Your task to perform on an android device: open app "Adobe Acrobat Reader" Image 0: 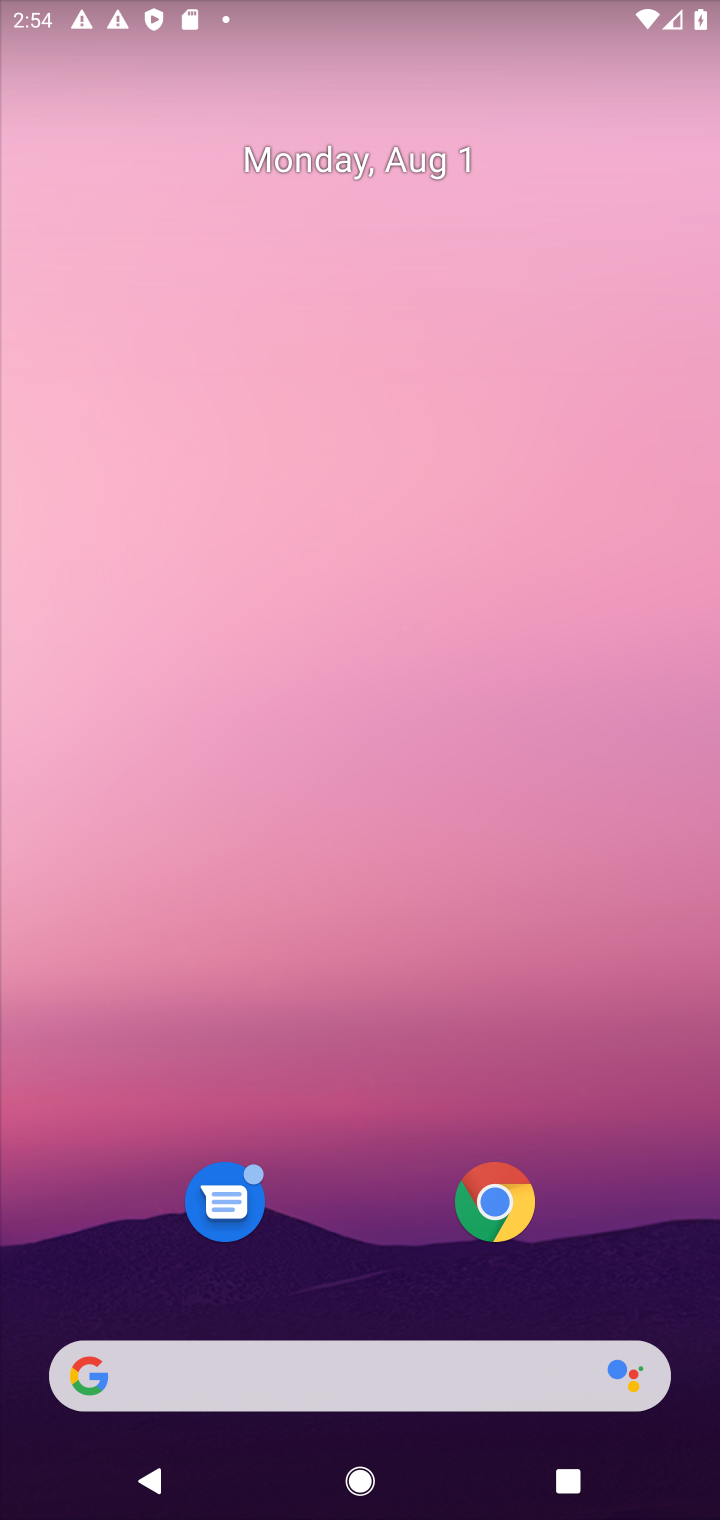
Step 0: drag from (353, 1029) to (425, 57)
Your task to perform on an android device: open app "Adobe Acrobat Reader" Image 1: 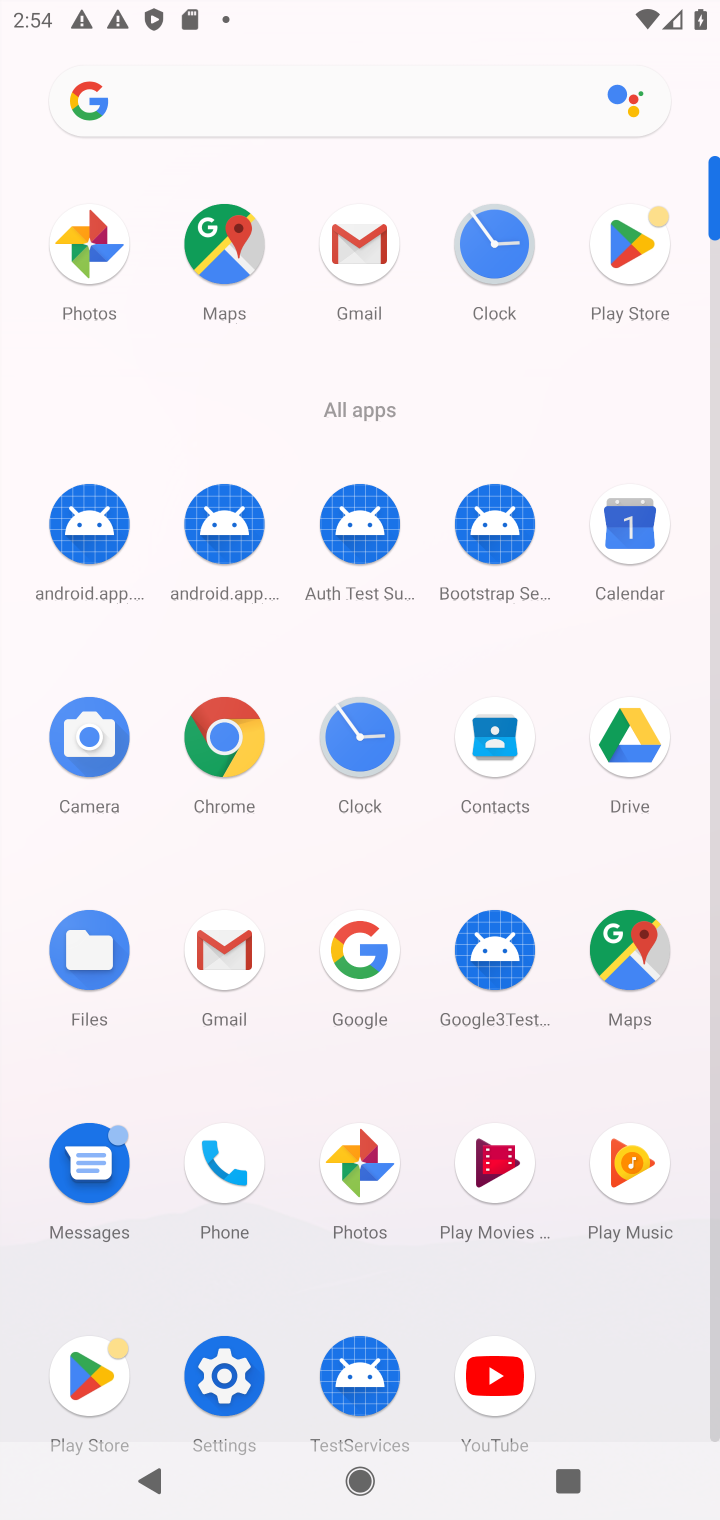
Step 1: click (619, 233)
Your task to perform on an android device: open app "Adobe Acrobat Reader" Image 2: 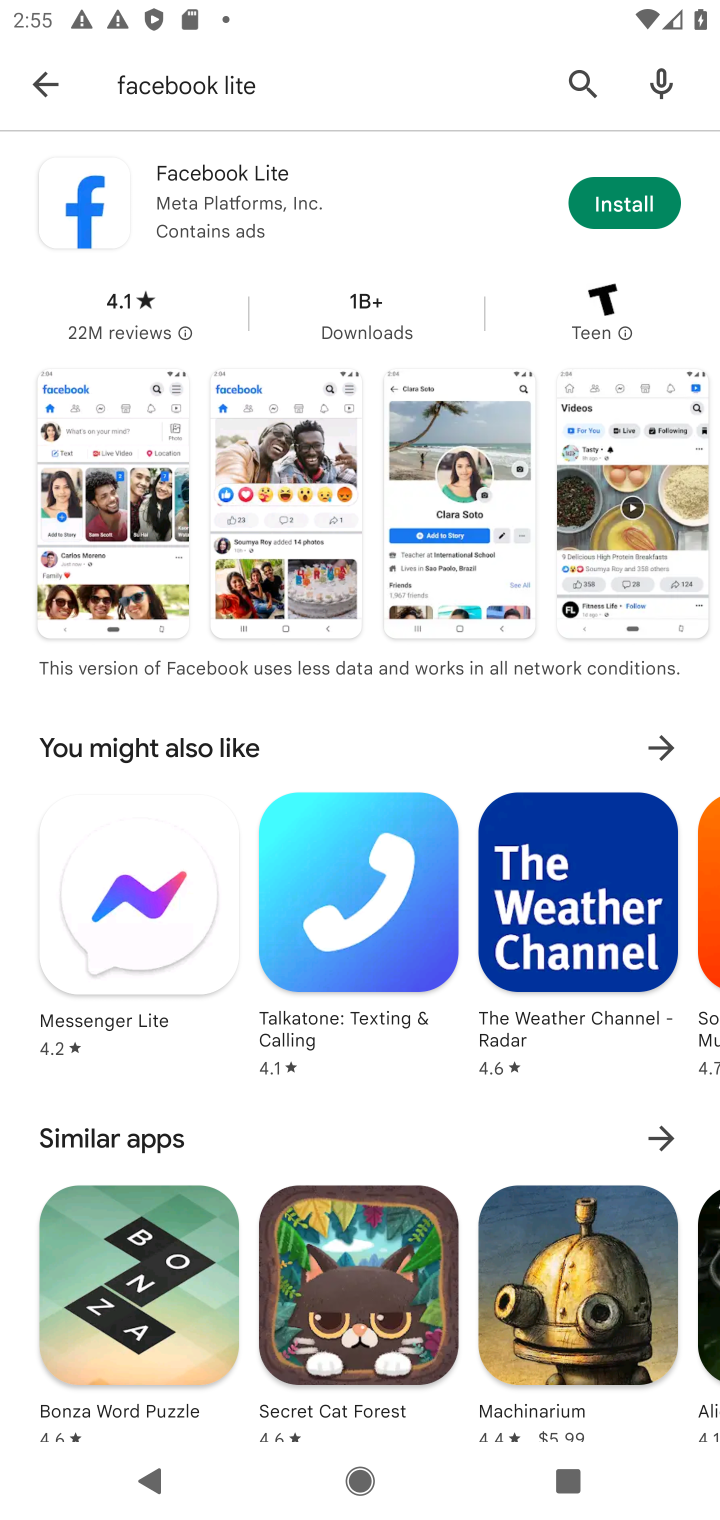
Step 2: click (389, 64)
Your task to perform on an android device: open app "Adobe Acrobat Reader" Image 3: 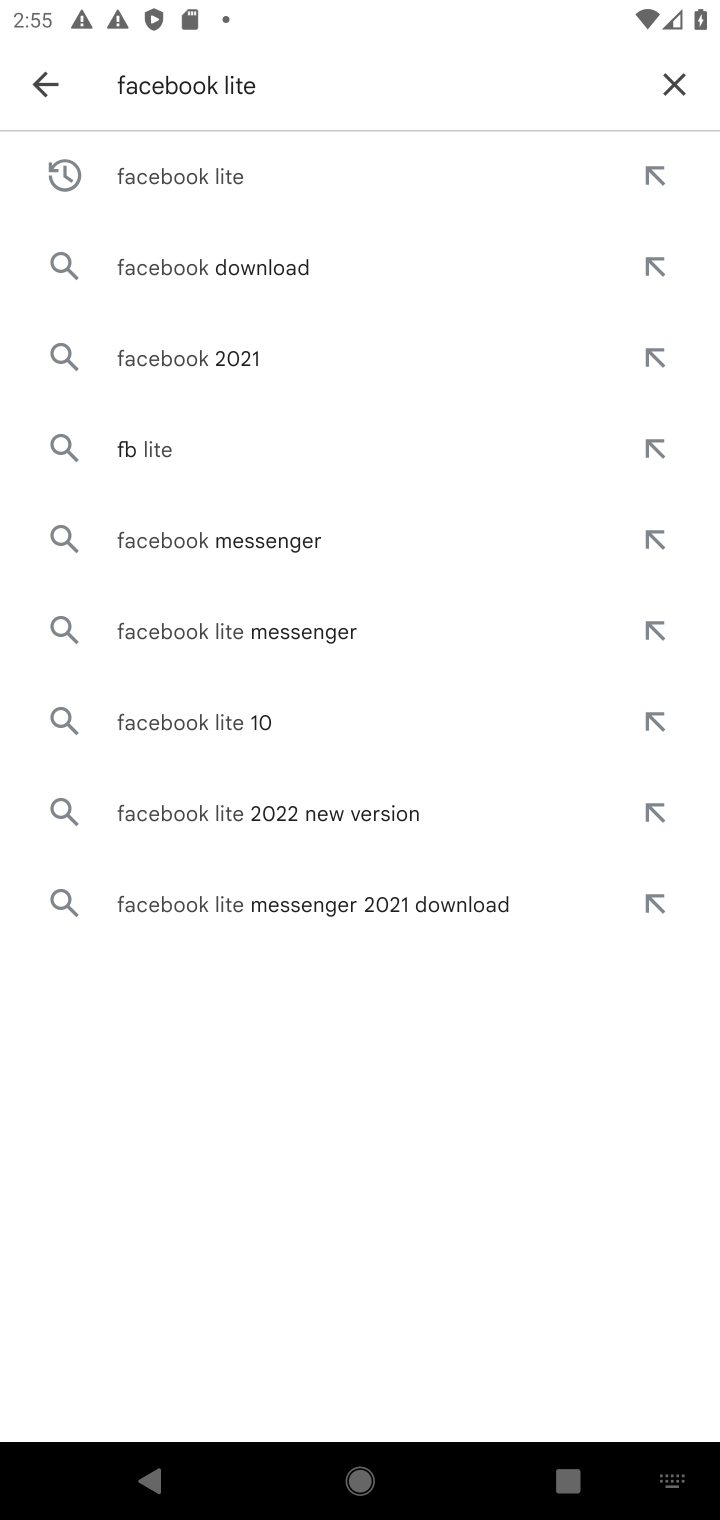
Step 3: click (689, 82)
Your task to perform on an android device: open app "Adobe Acrobat Reader" Image 4: 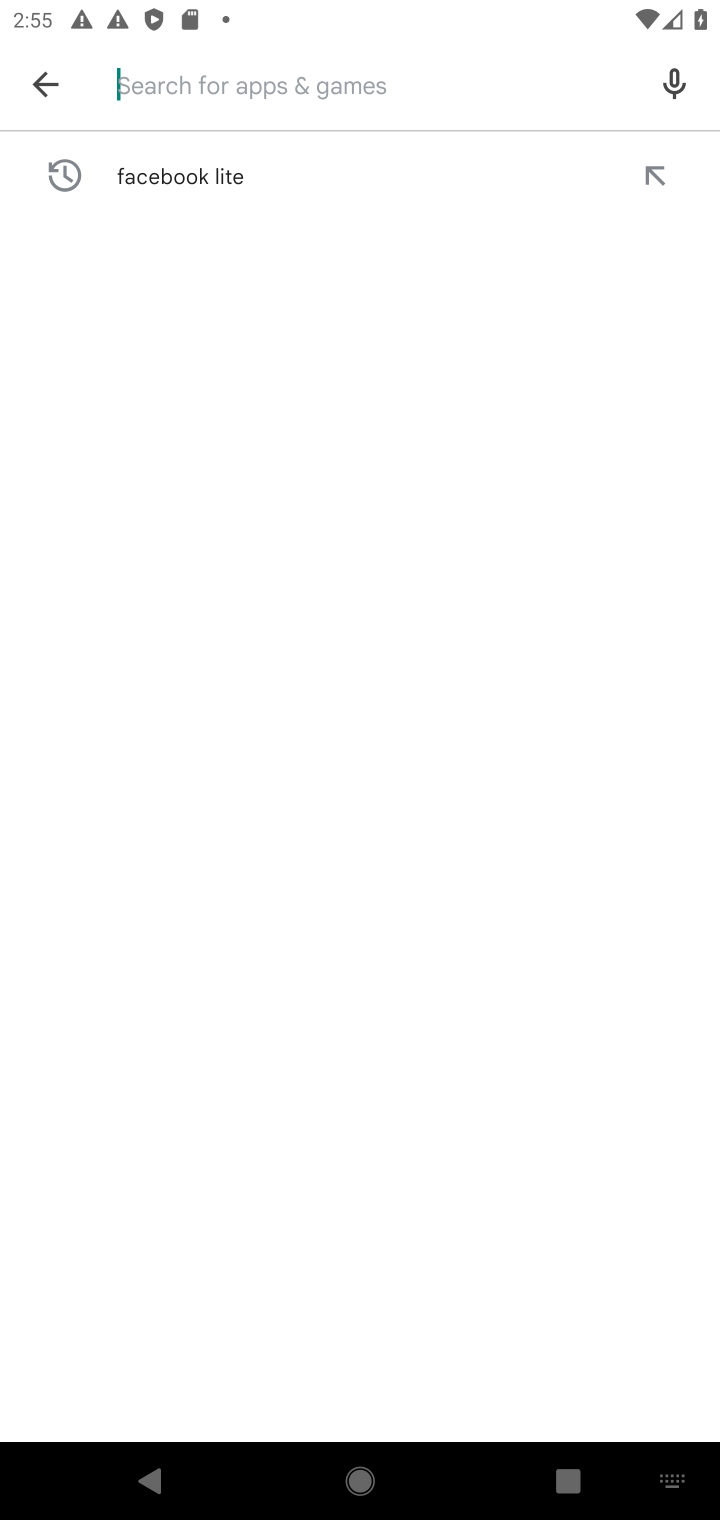
Step 4: type "Adobe Acrobat Reader"
Your task to perform on an android device: open app "Adobe Acrobat Reader" Image 5: 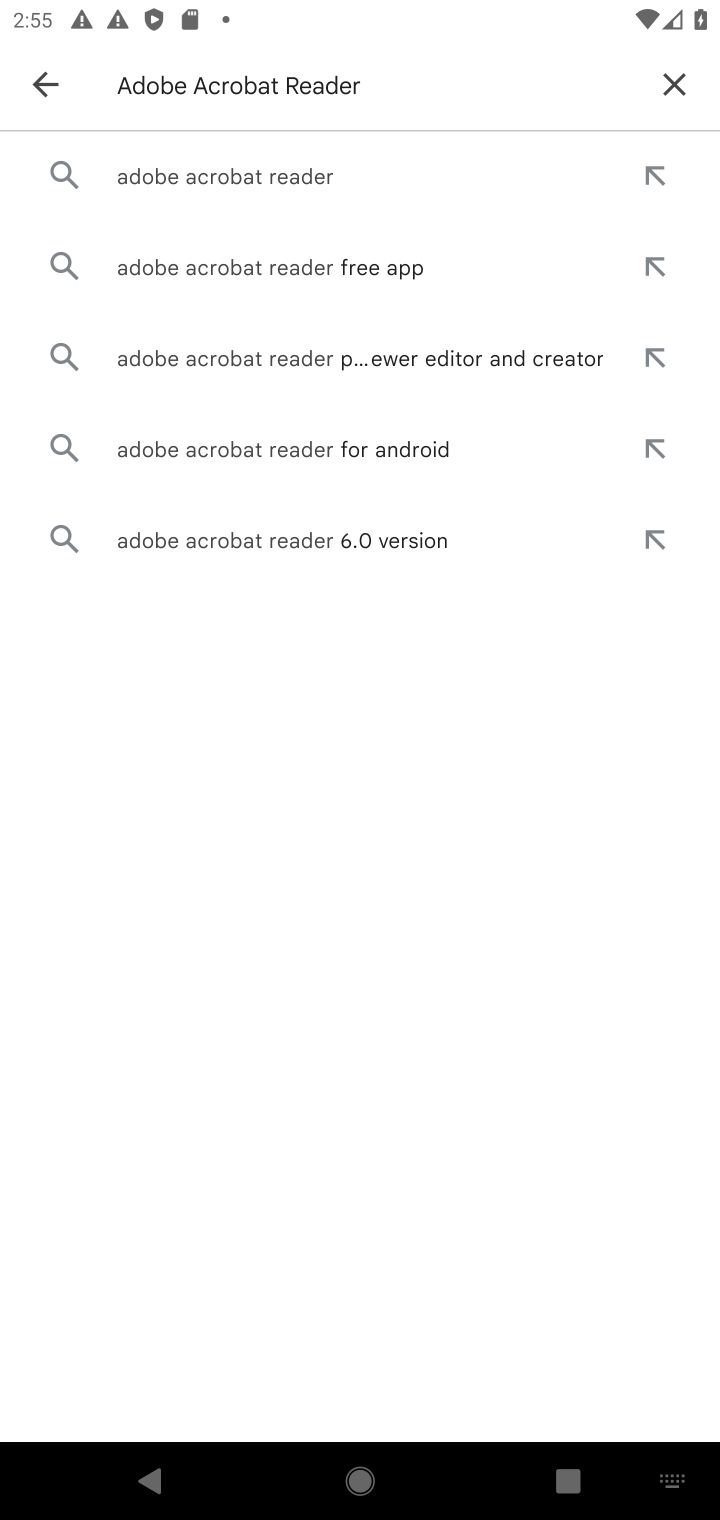
Step 5: press enter
Your task to perform on an android device: open app "Adobe Acrobat Reader" Image 6: 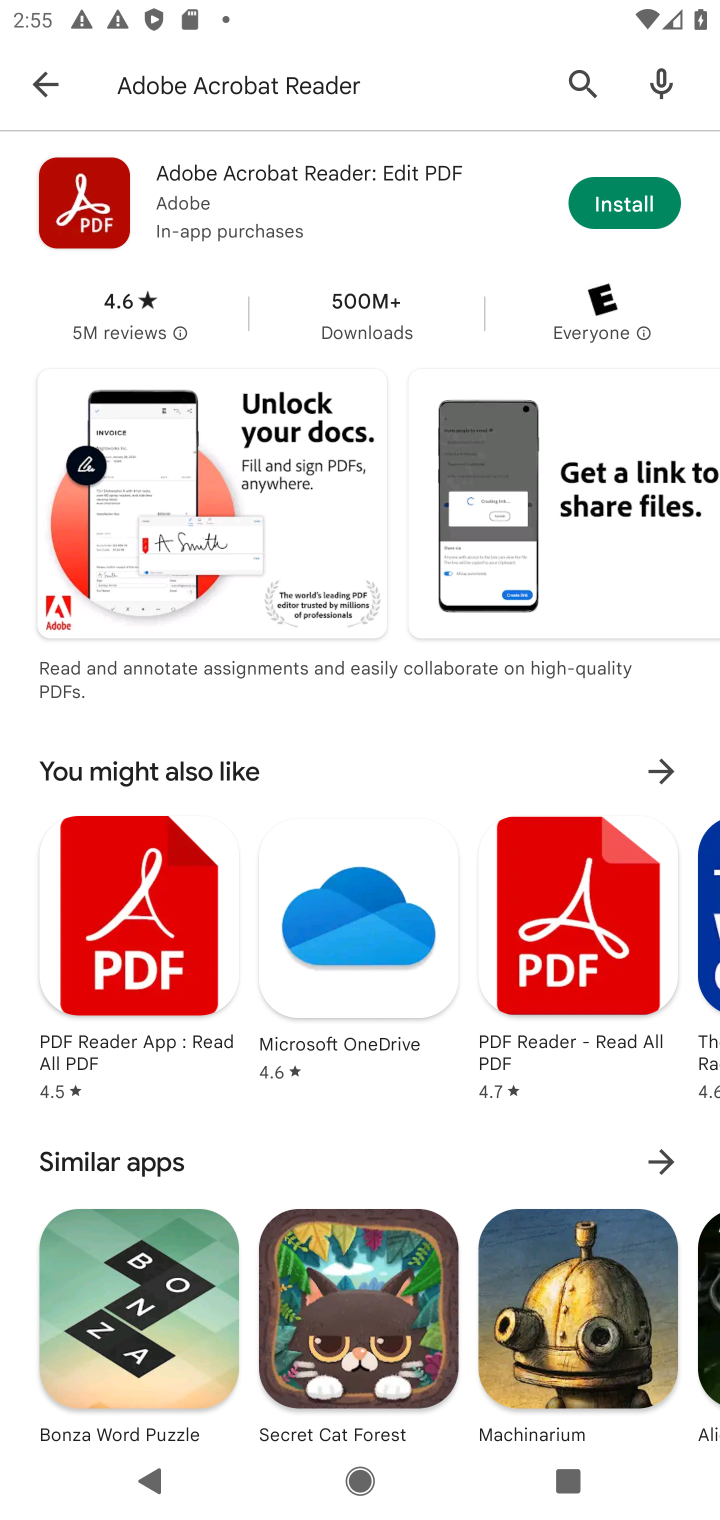
Step 6: task complete